Your task to perform on an android device: Open ESPN.com Image 0: 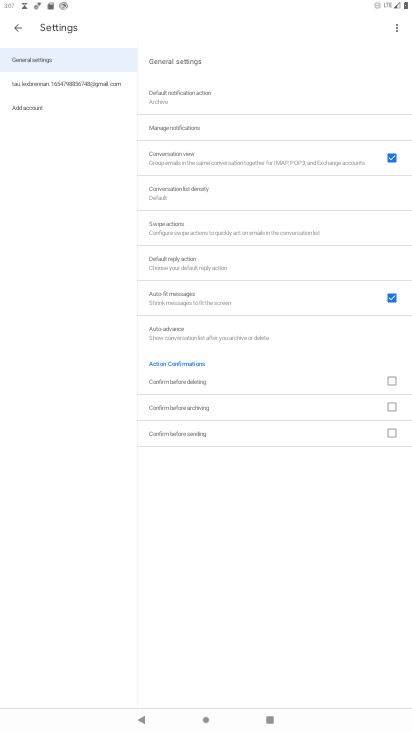
Step 0: press home button
Your task to perform on an android device: Open ESPN.com Image 1: 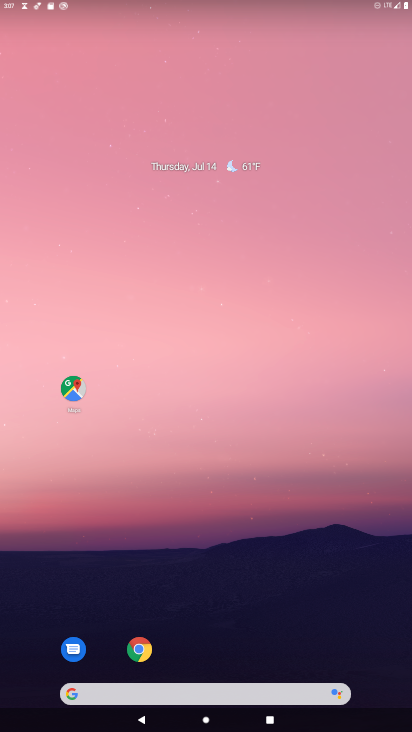
Step 1: drag from (269, 648) to (293, 33)
Your task to perform on an android device: Open ESPN.com Image 2: 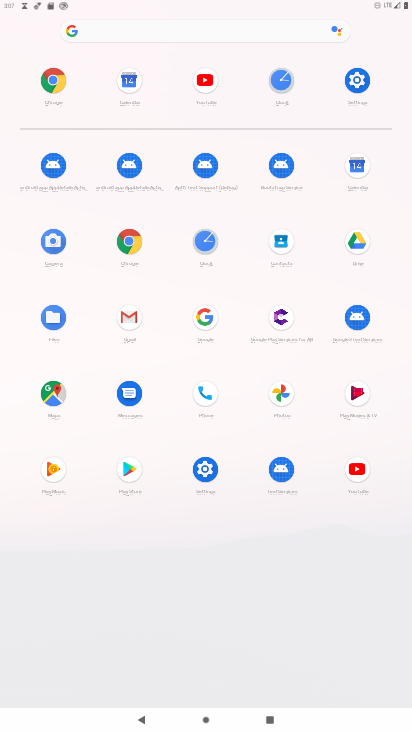
Step 2: click (129, 234)
Your task to perform on an android device: Open ESPN.com Image 3: 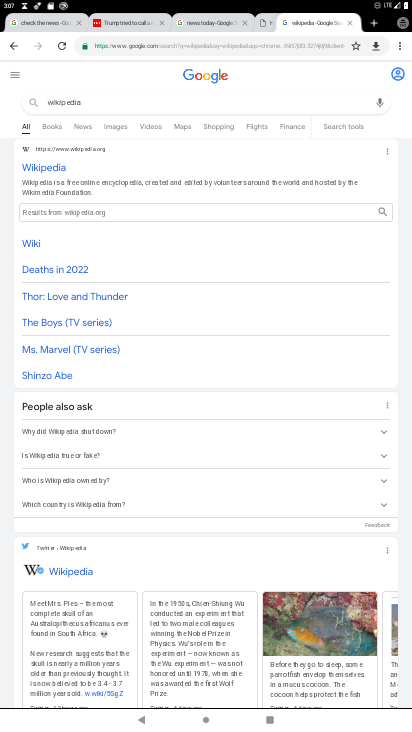
Step 3: click (226, 43)
Your task to perform on an android device: Open ESPN.com Image 4: 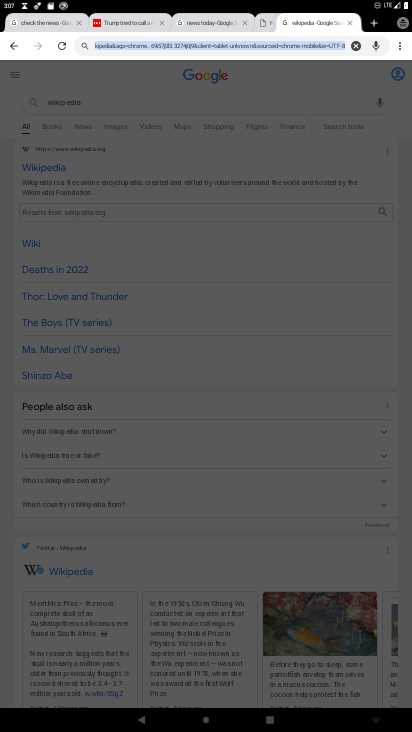
Step 4: type "espn.com"
Your task to perform on an android device: Open ESPN.com Image 5: 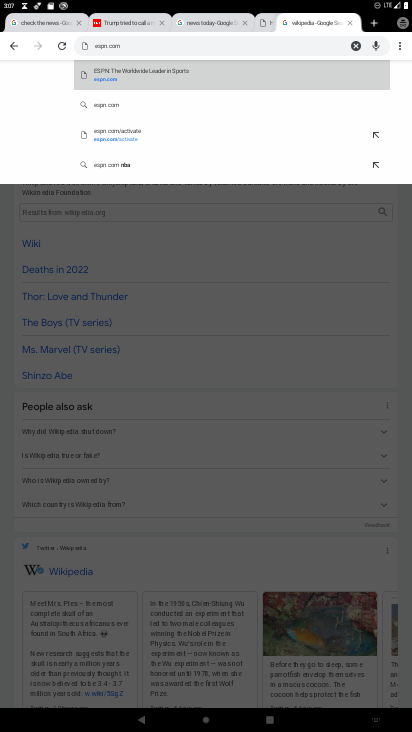
Step 5: click (117, 86)
Your task to perform on an android device: Open ESPN.com Image 6: 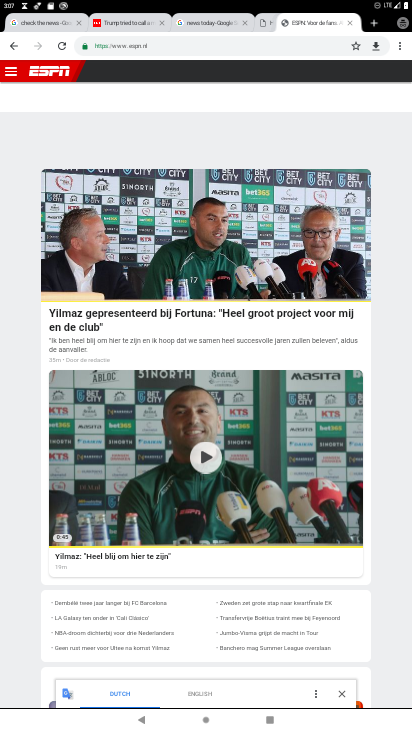
Step 6: task complete